Your task to perform on an android device: make emails show in primary in the gmail app Image 0: 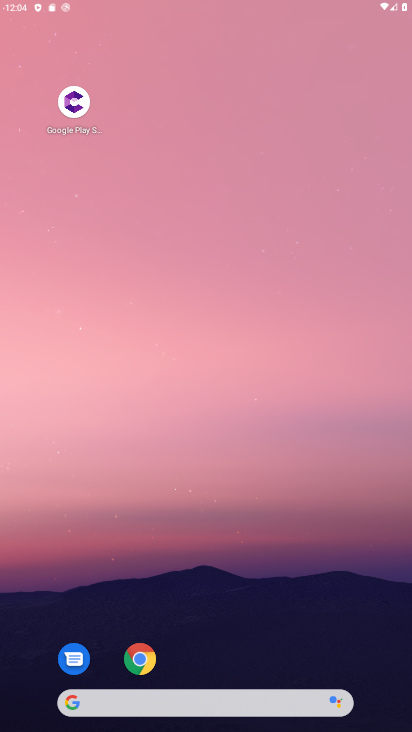
Step 0: press home button
Your task to perform on an android device: make emails show in primary in the gmail app Image 1: 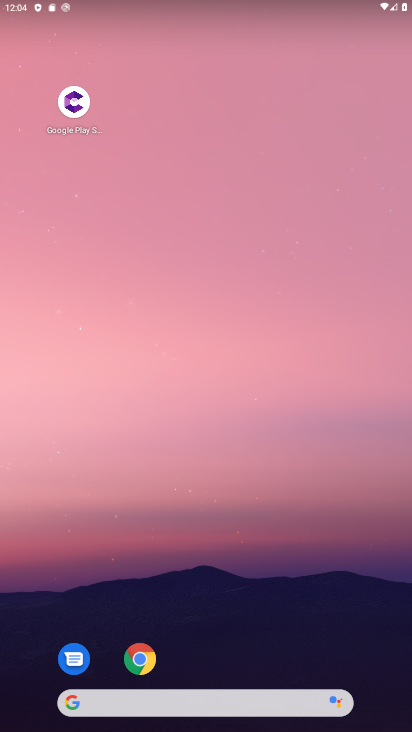
Step 1: drag from (234, 665) to (192, 38)
Your task to perform on an android device: make emails show in primary in the gmail app Image 2: 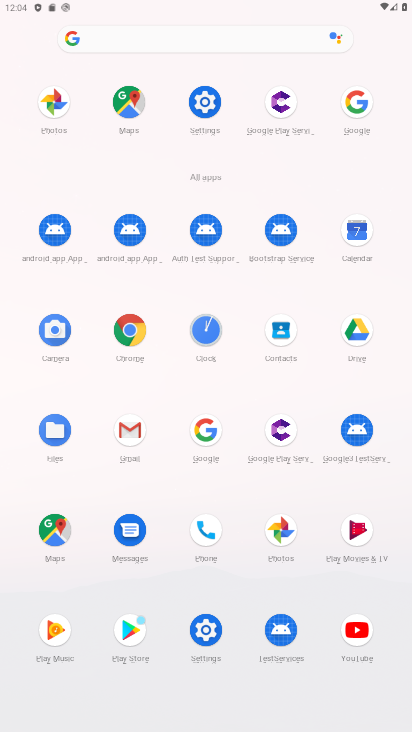
Step 2: click (131, 446)
Your task to perform on an android device: make emails show in primary in the gmail app Image 3: 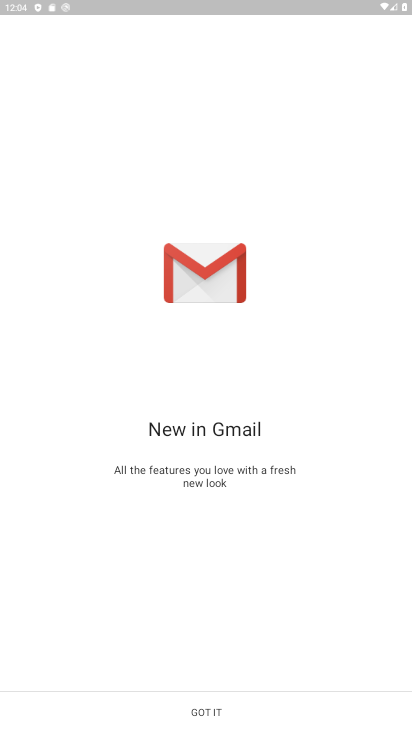
Step 3: click (208, 707)
Your task to perform on an android device: make emails show in primary in the gmail app Image 4: 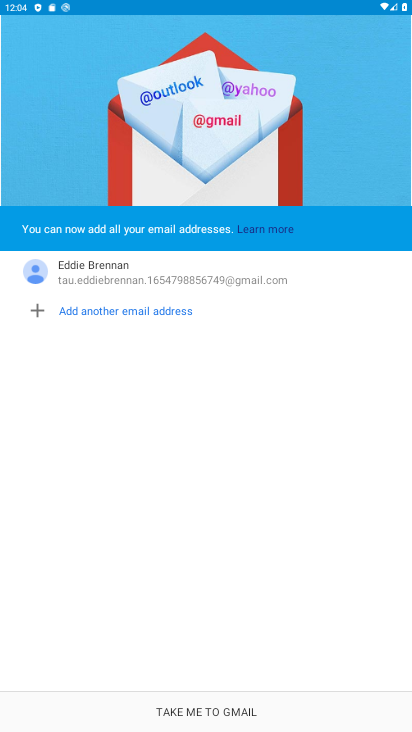
Step 4: click (215, 713)
Your task to perform on an android device: make emails show in primary in the gmail app Image 5: 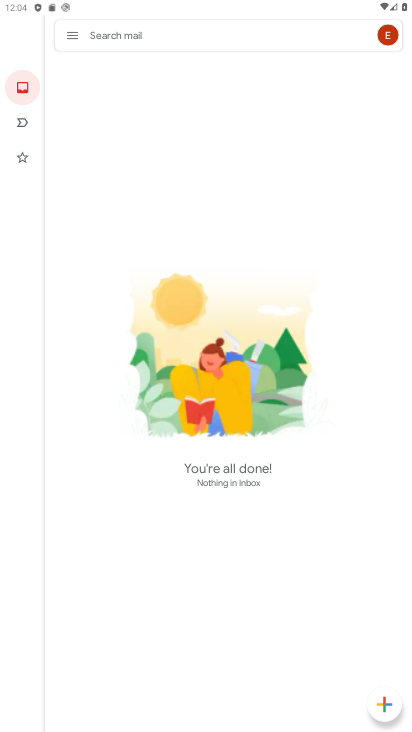
Step 5: click (70, 36)
Your task to perform on an android device: make emails show in primary in the gmail app Image 6: 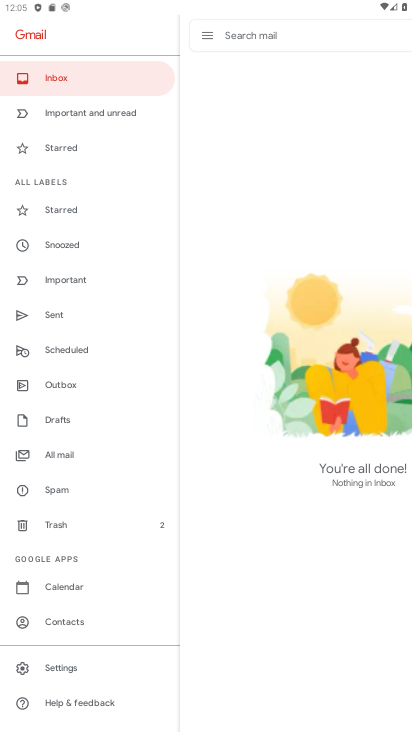
Step 6: click (73, 669)
Your task to perform on an android device: make emails show in primary in the gmail app Image 7: 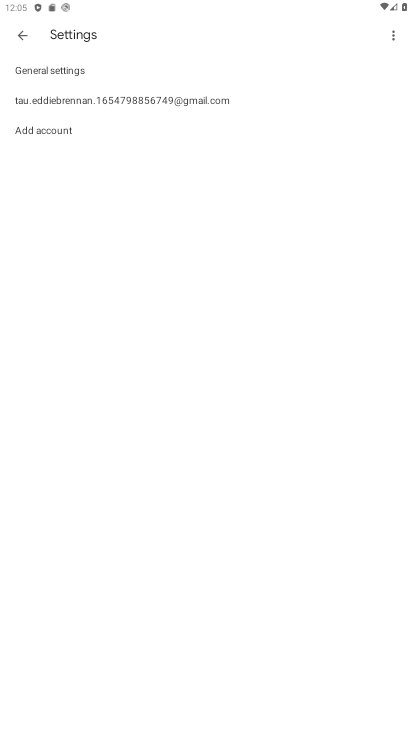
Step 7: click (98, 92)
Your task to perform on an android device: make emails show in primary in the gmail app Image 8: 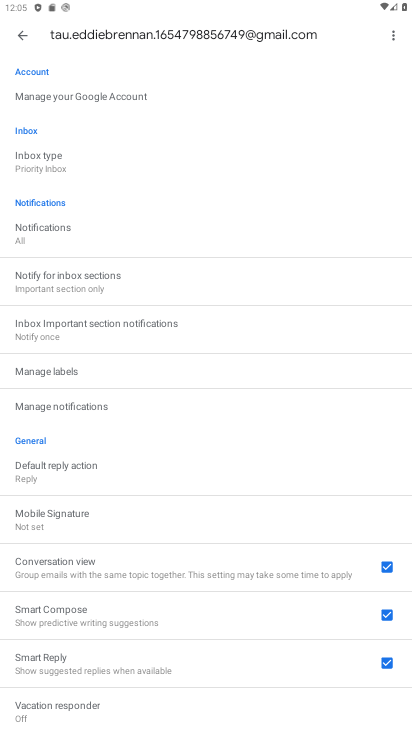
Step 8: click (43, 166)
Your task to perform on an android device: make emails show in primary in the gmail app Image 9: 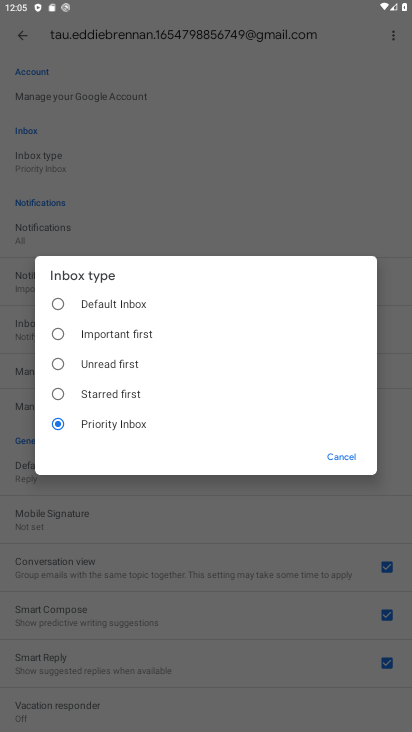
Step 9: task complete